Your task to perform on an android device: Toggle the flashlight Image 0: 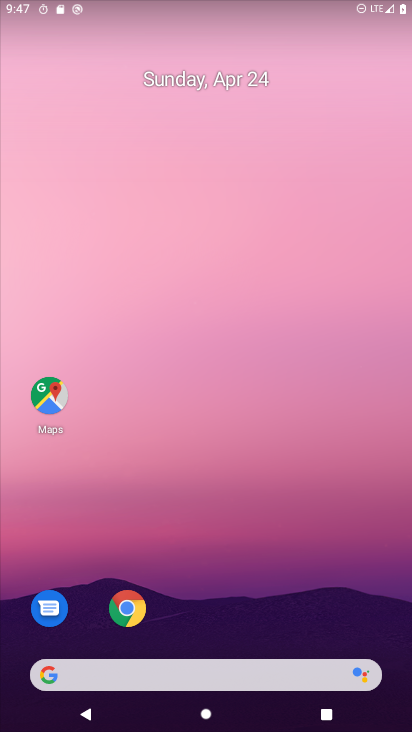
Step 0: drag from (288, 601) to (232, 63)
Your task to perform on an android device: Toggle the flashlight Image 1: 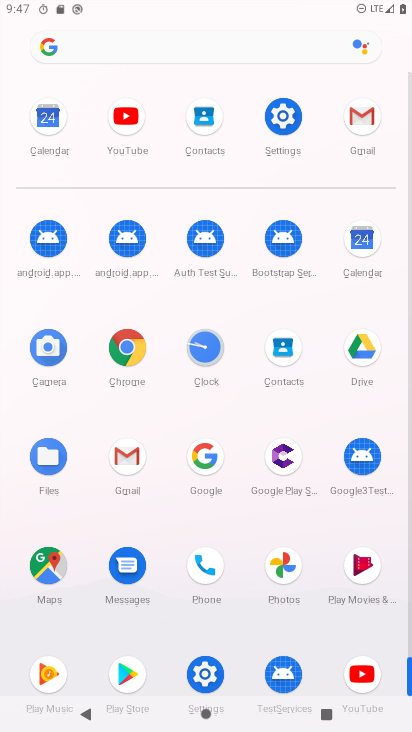
Step 1: click (290, 122)
Your task to perform on an android device: Toggle the flashlight Image 2: 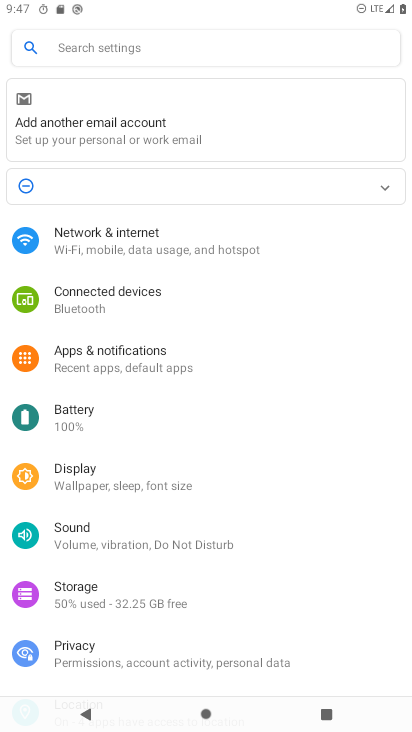
Step 2: click (271, 49)
Your task to perform on an android device: Toggle the flashlight Image 3: 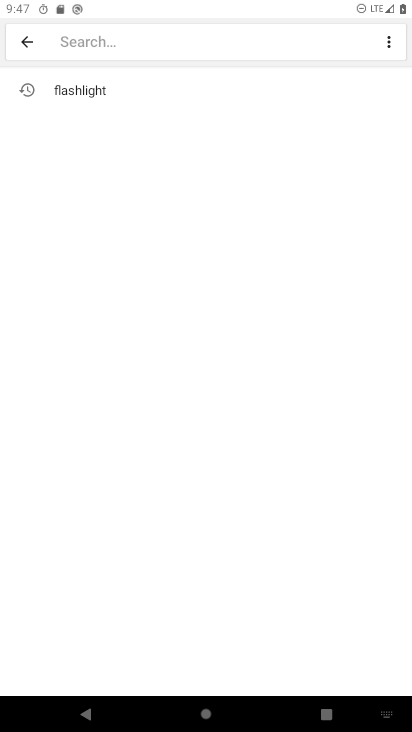
Step 3: click (143, 88)
Your task to perform on an android device: Toggle the flashlight Image 4: 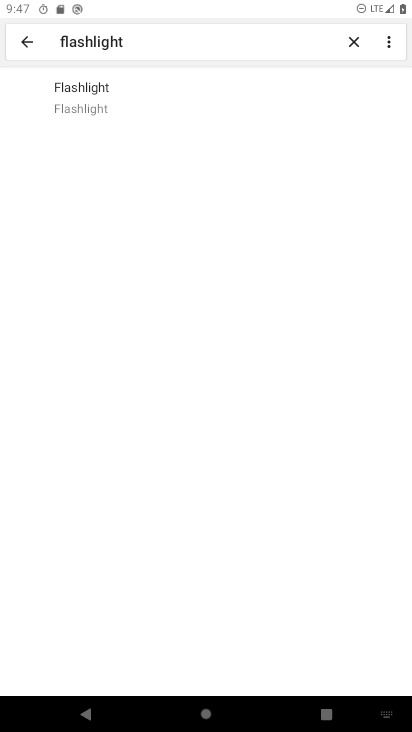
Step 4: click (93, 101)
Your task to perform on an android device: Toggle the flashlight Image 5: 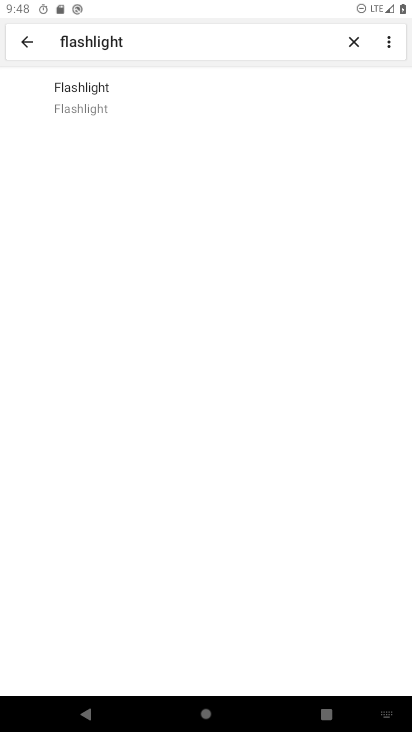
Step 5: task complete